Your task to perform on an android device: Set the phone to "Do not disturb". Image 0: 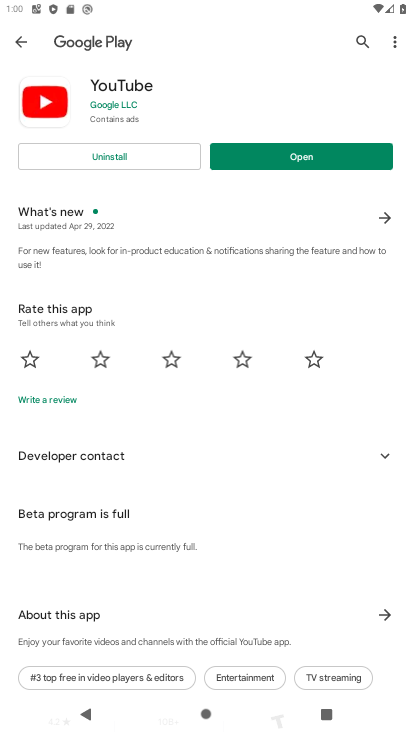
Step 0: press home button
Your task to perform on an android device: Set the phone to "Do not disturb". Image 1: 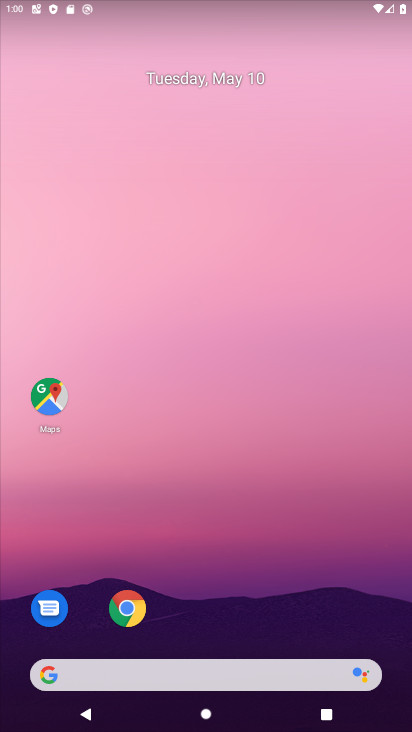
Step 1: drag from (273, 637) to (248, 301)
Your task to perform on an android device: Set the phone to "Do not disturb". Image 2: 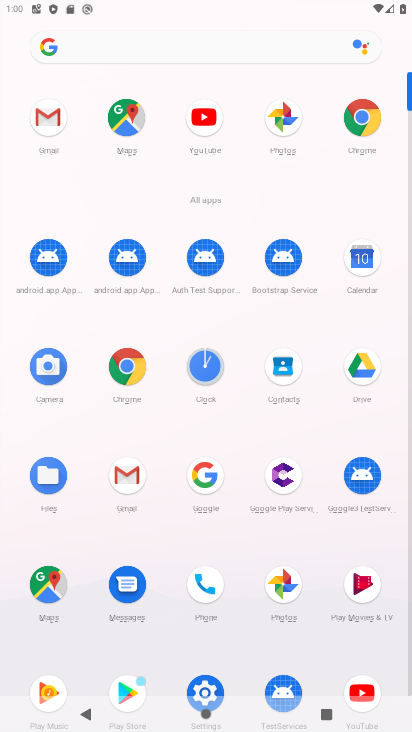
Step 2: click (204, 680)
Your task to perform on an android device: Set the phone to "Do not disturb". Image 3: 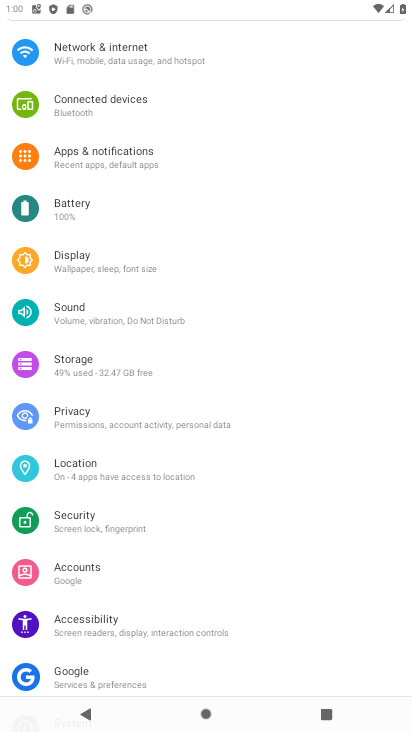
Step 3: drag from (166, 154) to (178, 394)
Your task to perform on an android device: Set the phone to "Do not disturb". Image 4: 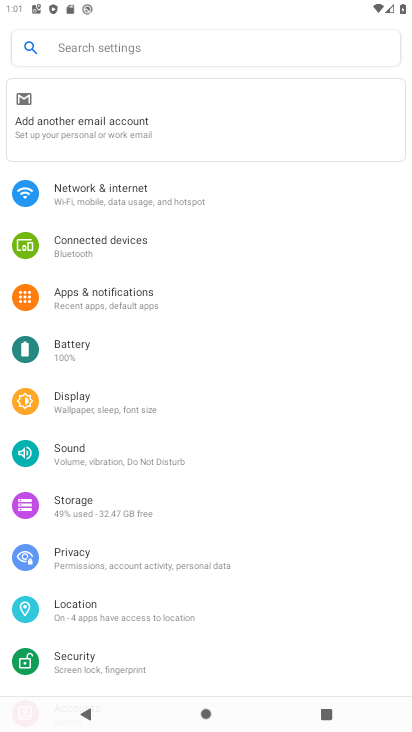
Step 4: click (83, 459)
Your task to perform on an android device: Set the phone to "Do not disturb". Image 5: 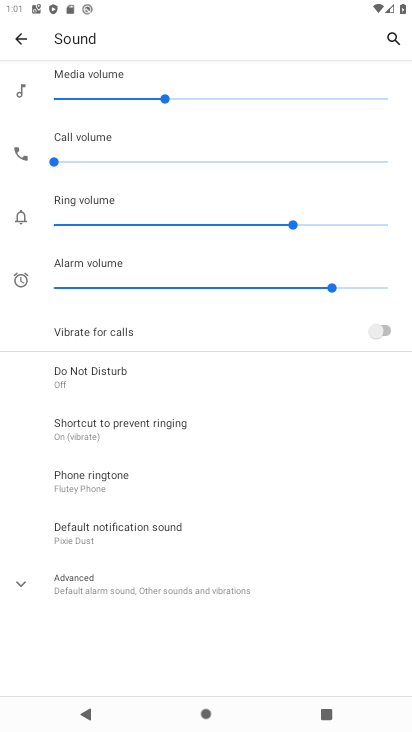
Step 5: click (140, 354)
Your task to perform on an android device: Set the phone to "Do not disturb". Image 6: 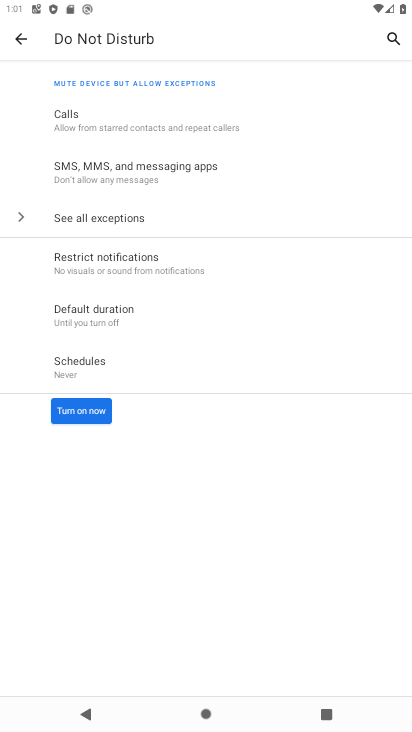
Step 6: click (101, 412)
Your task to perform on an android device: Set the phone to "Do not disturb". Image 7: 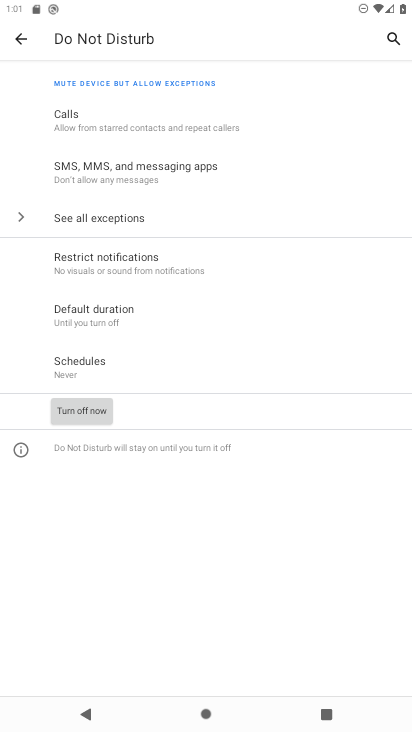
Step 7: task complete